Your task to perform on an android device: change alarm snooze length Image 0: 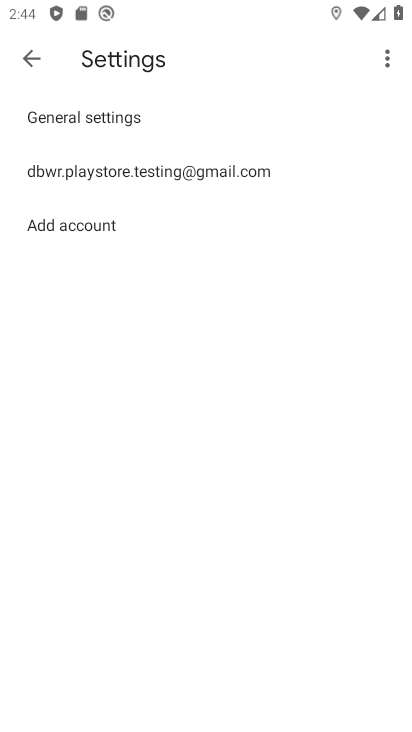
Step 0: press home button
Your task to perform on an android device: change alarm snooze length Image 1: 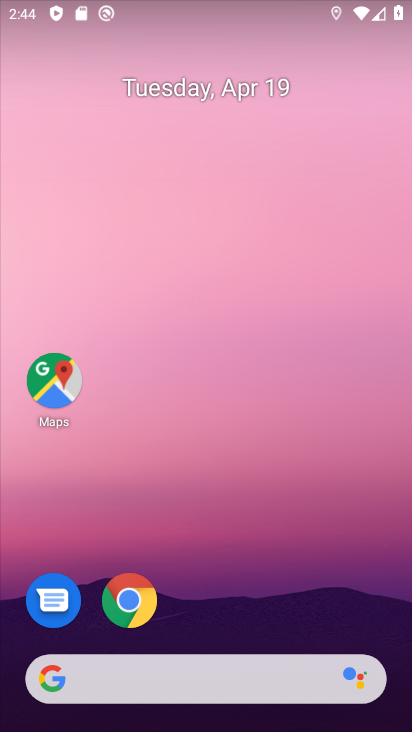
Step 1: drag from (345, 615) to (240, 115)
Your task to perform on an android device: change alarm snooze length Image 2: 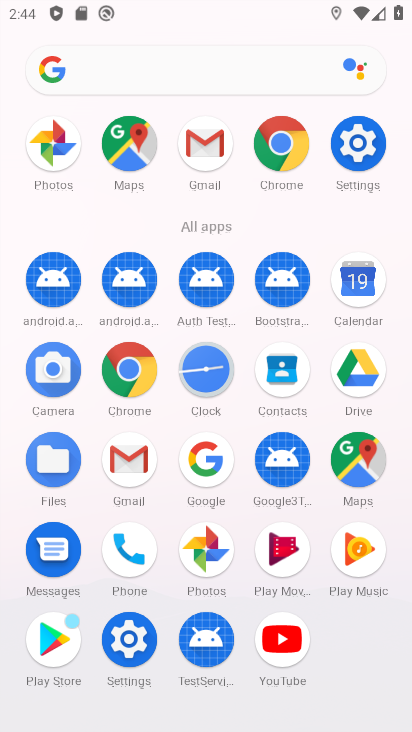
Step 2: click (215, 363)
Your task to perform on an android device: change alarm snooze length Image 3: 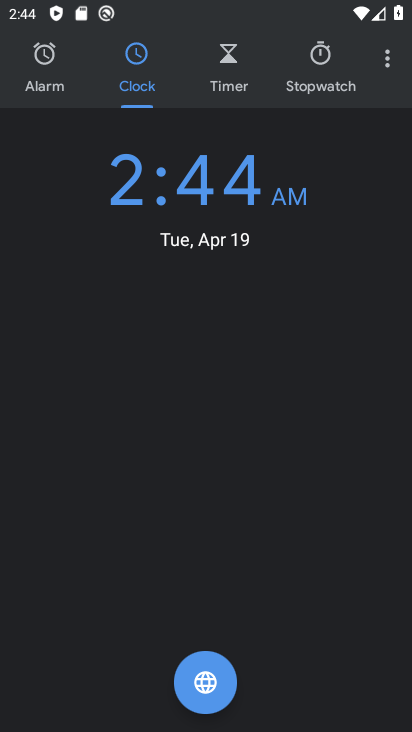
Step 3: click (391, 66)
Your task to perform on an android device: change alarm snooze length Image 4: 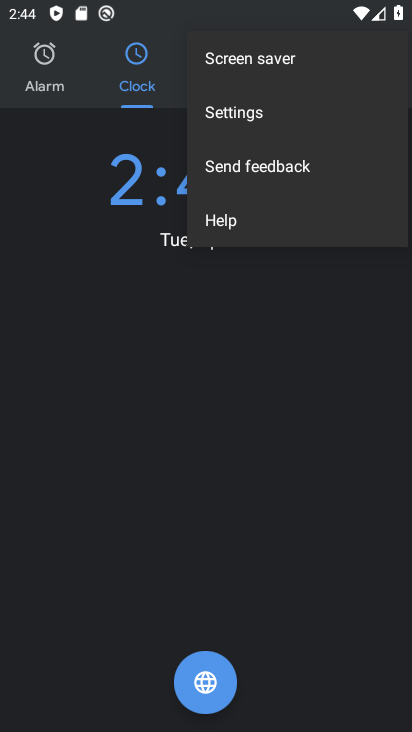
Step 4: click (366, 111)
Your task to perform on an android device: change alarm snooze length Image 5: 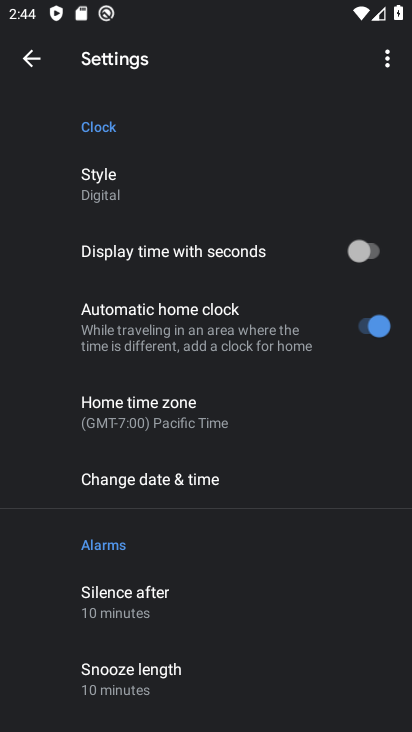
Step 5: drag from (351, 572) to (262, 93)
Your task to perform on an android device: change alarm snooze length Image 6: 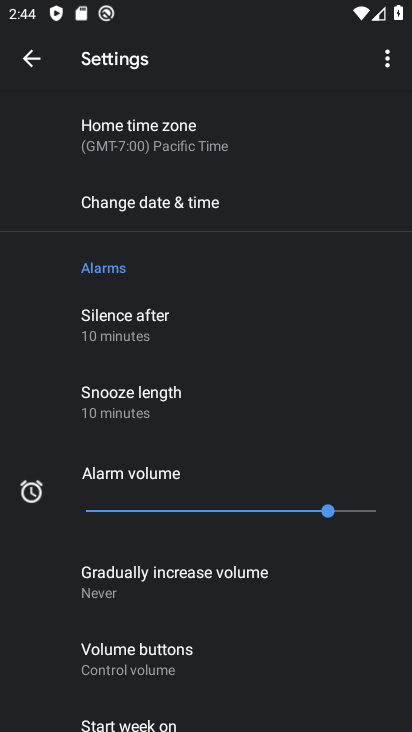
Step 6: click (292, 399)
Your task to perform on an android device: change alarm snooze length Image 7: 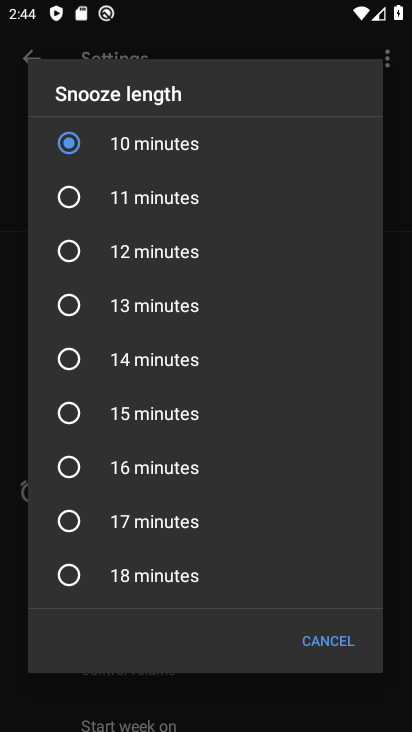
Step 7: click (186, 369)
Your task to perform on an android device: change alarm snooze length Image 8: 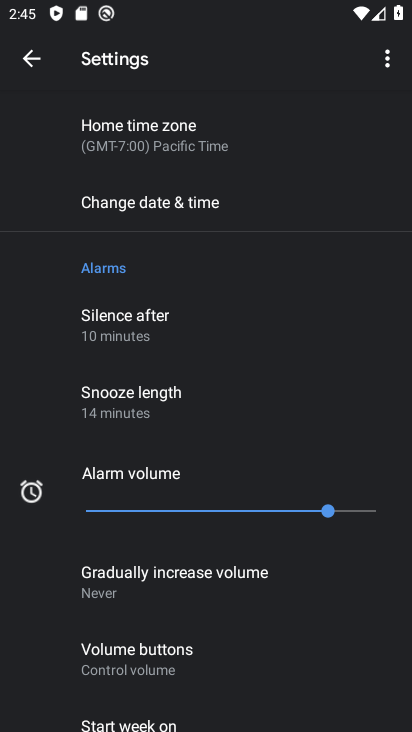
Step 8: task complete